Your task to perform on an android device: toggle javascript in the chrome app Image 0: 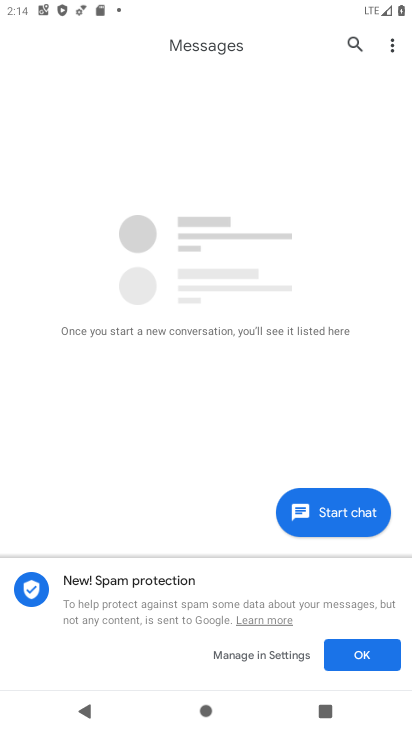
Step 0: press home button
Your task to perform on an android device: toggle javascript in the chrome app Image 1: 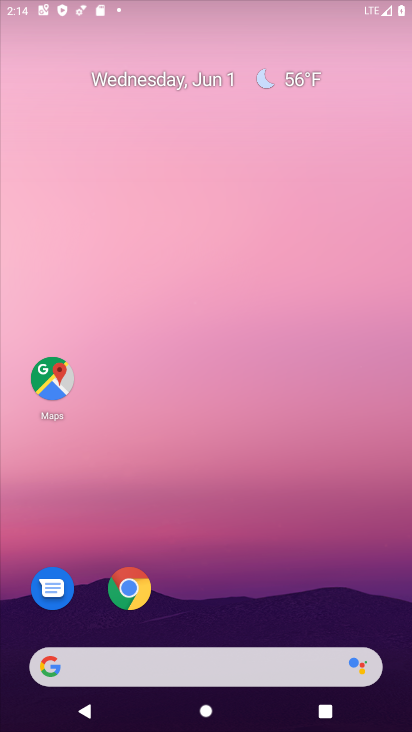
Step 1: click (128, 587)
Your task to perform on an android device: toggle javascript in the chrome app Image 2: 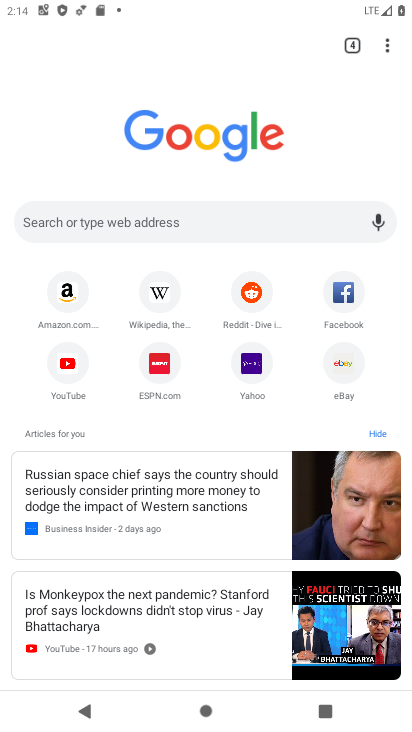
Step 2: click (386, 49)
Your task to perform on an android device: toggle javascript in the chrome app Image 3: 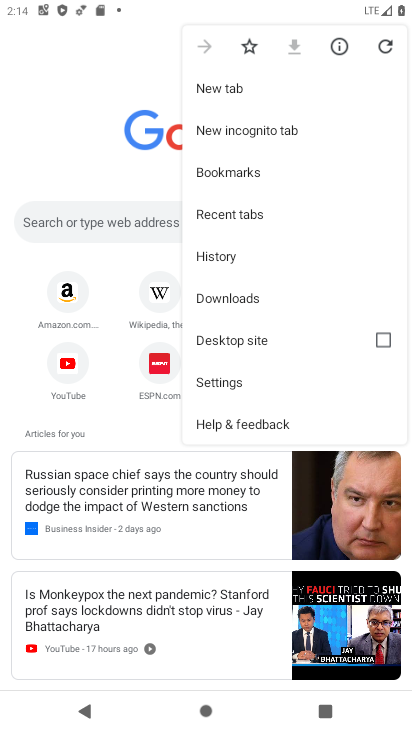
Step 3: click (245, 379)
Your task to perform on an android device: toggle javascript in the chrome app Image 4: 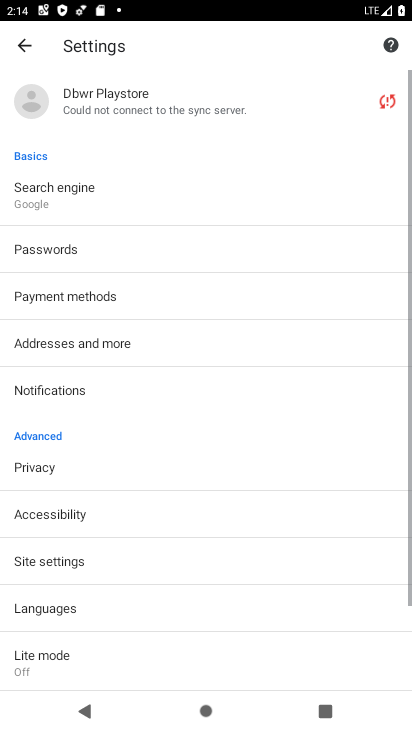
Step 4: drag from (152, 578) to (181, 325)
Your task to perform on an android device: toggle javascript in the chrome app Image 5: 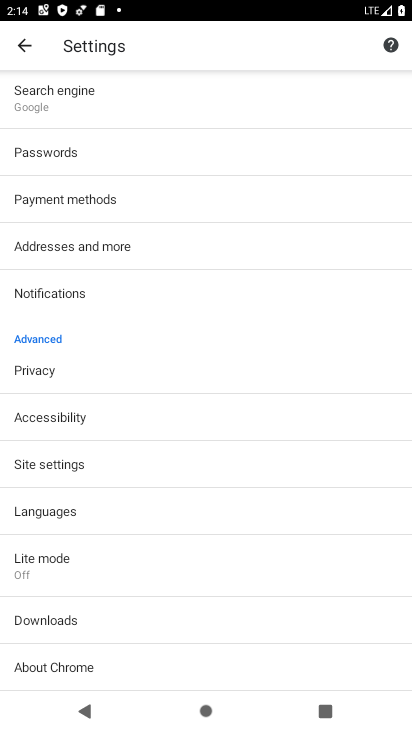
Step 5: click (111, 468)
Your task to perform on an android device: toggle javascript in the chrome app Image 6: 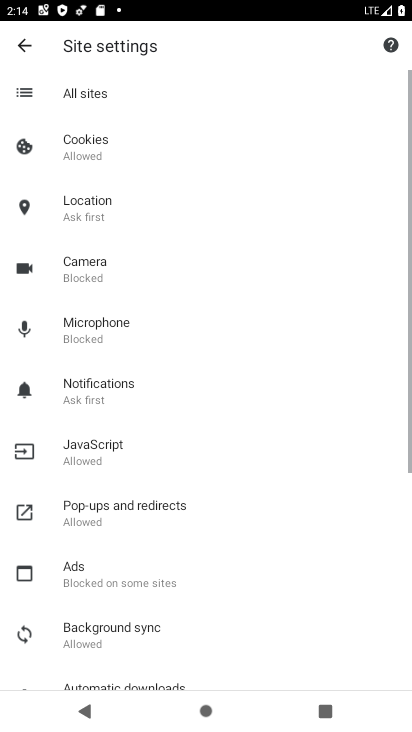
Step 6: click (118, 448)
Your task to perform on an android device: toggle javascript in the chrome app Image 7: 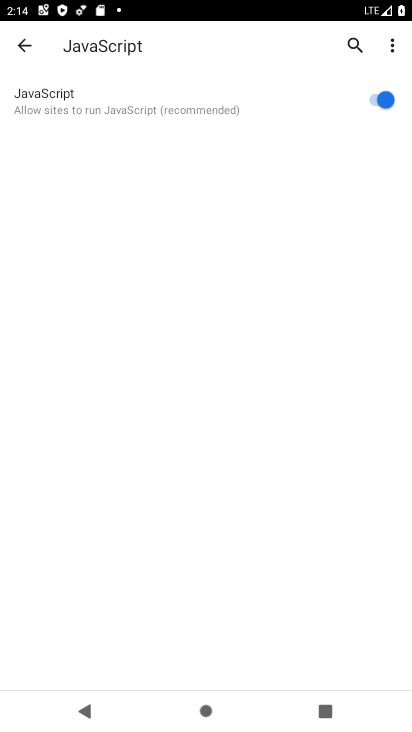
Step 7: click (377, 103)
Your task to perform on an android device: toggle javascript in the chrome app Image 8: 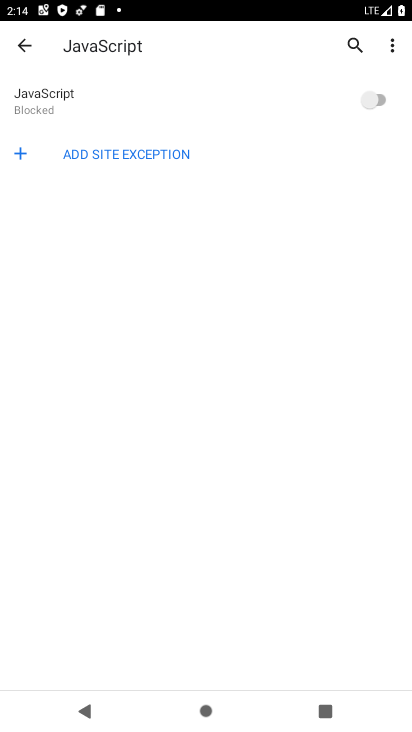
Step 8: task complete